Your task to perform on an android device: Go to accessibility settings Image 0: 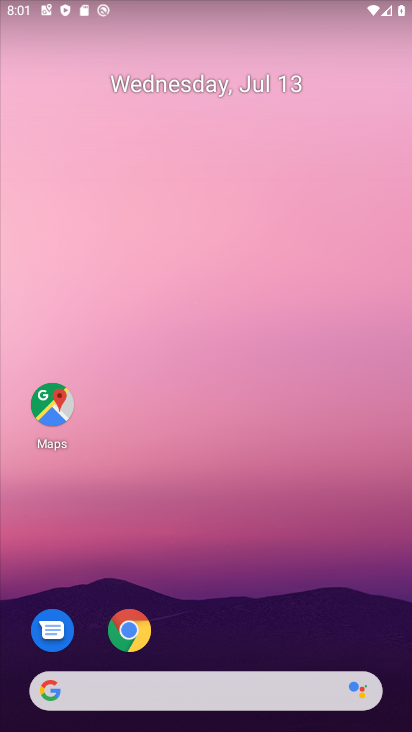
Step 0: drag from (343, 608) to (330, 81)
Your task to perform on an android device: Go to accessibility settings Image 1: 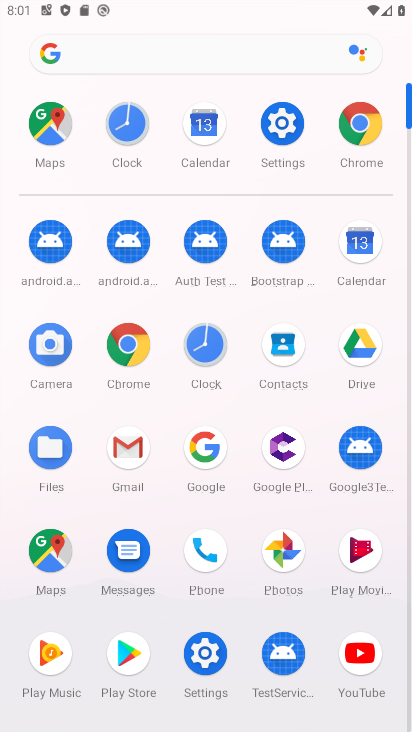
Step 1: click (292, 134)
Your task to perform on an android device: Go to accessibility settings Image 2: 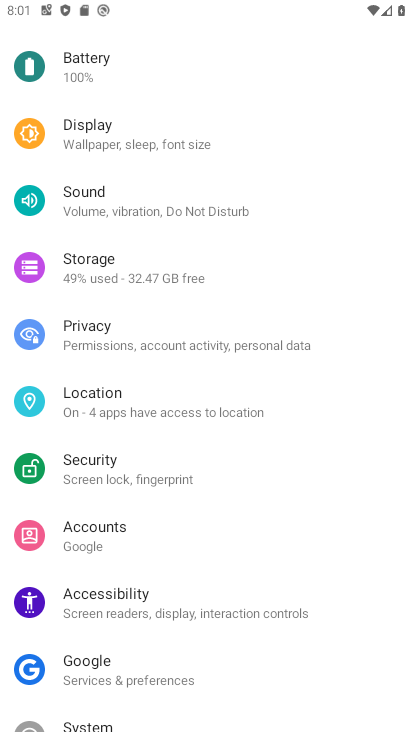
Step 2: drag from (331, 224) to (337, 331)
Your task to perform on an android device: Go to accessibility settings Image 3: 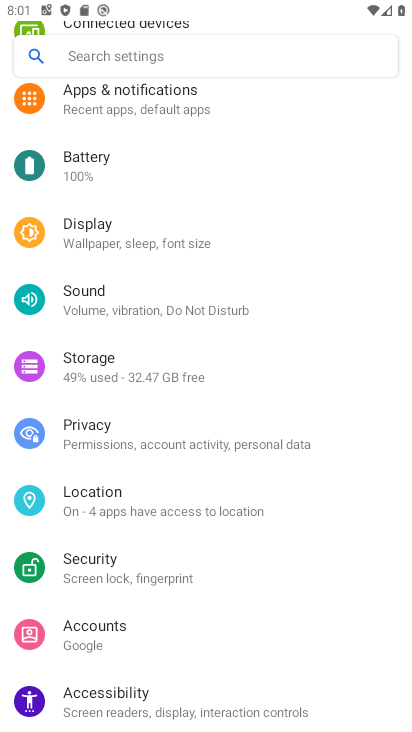
Step 3: drag from (335, 186) to (344, 332)
Your task to perform on an android device: Go to accessibility settings Image 4: 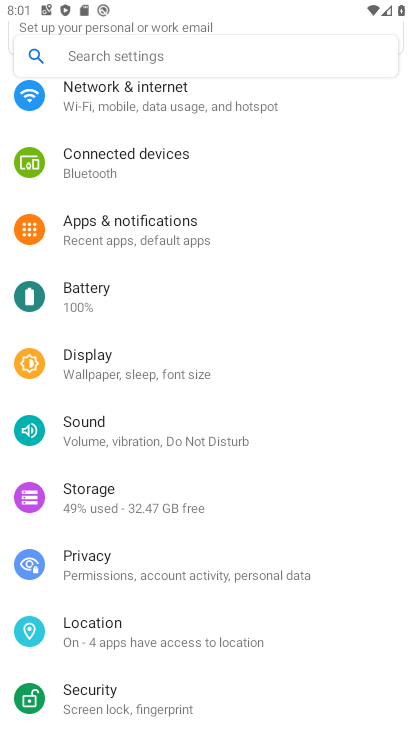
Step 4: drag from (334, 181) to (344, 294)
Your task to perform on an android device: Go to accessibility settings Image 5: 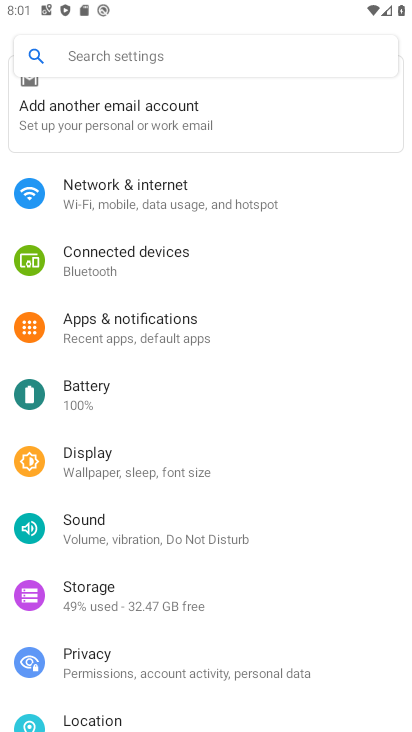
Step 5: drag from (346, 211) to (354, 343)
Your task to perform on an android device: Go to accessibility settings Image 6: 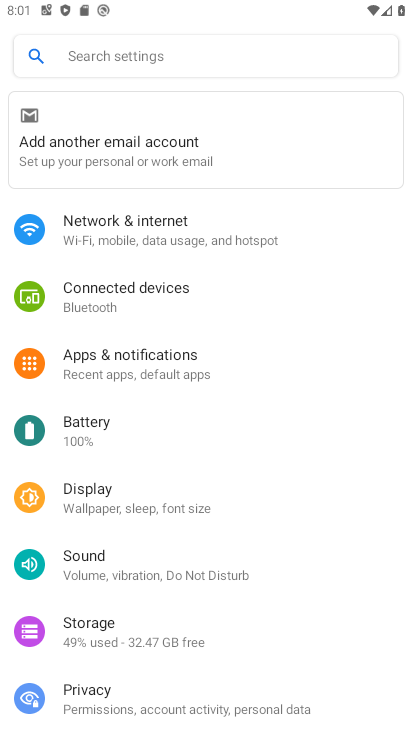
Step 6: drag from (348, 496) to (326, 294)
Your task to perform on an android device: Go to accessibility settings Image 7: 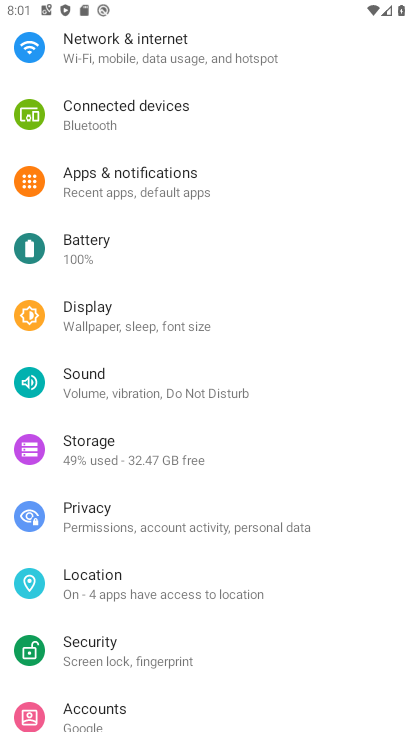
Step 7: drag from (345, 460) to (333, 270)
Your task to perform on an android device: Go to accessibility settings Image 8: 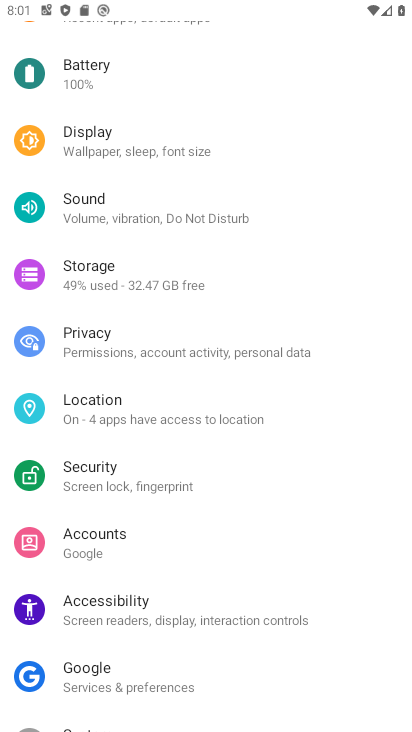
Step 8: drag from (346, 448) to (337, 342)
Your task to perform on an android device: Go to accessibility settings Image 9: 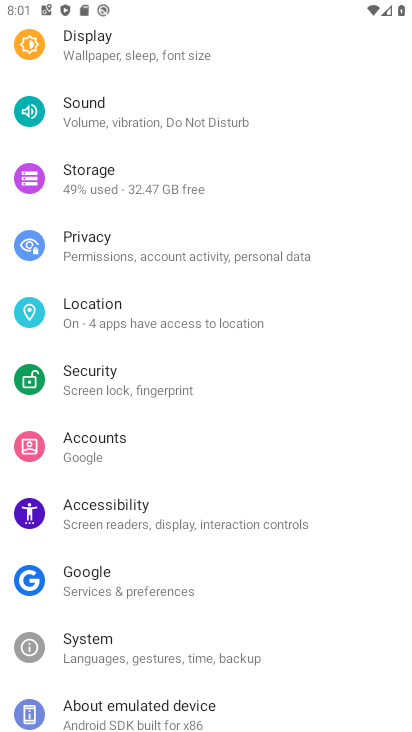
Step 9: drag from (346, 495) to (353, 297)
Your task to perform on an android device: Go to accessibility settings Image 10: 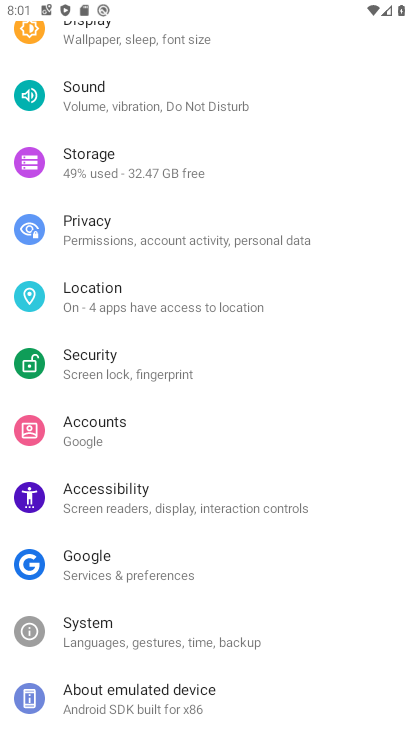
Step 10: drag from (352, 200) to (354, 371)
Your task to perform on an android device: Go to accessibility settings Image 11: 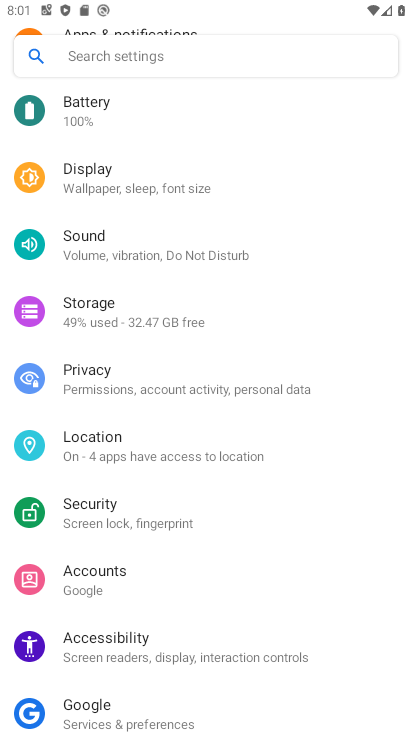
Step 11: drag from (351, 182) to (350, 316)
Your task to perform on an android device: Go to accessibility settings Image 12: 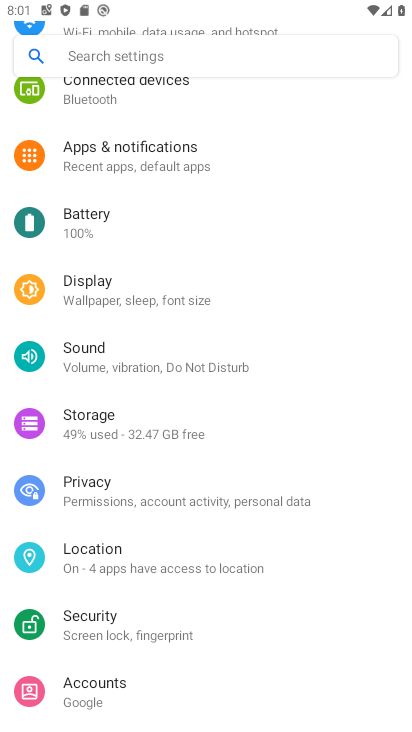
Step 12: drag from (350, 155) to (345, 307)
Your task to perform on an android device: Go to accessibility settings Image 13: 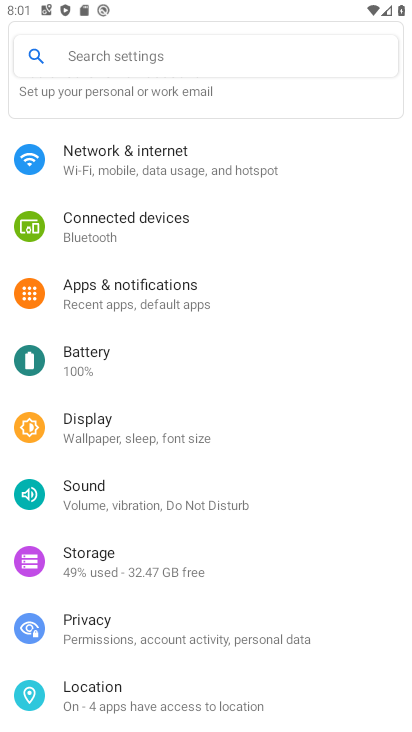
Step 13: drag from (355, 182) to (357, 325)
Your task to perform on an android device: Go to accessibility settings Image 14: 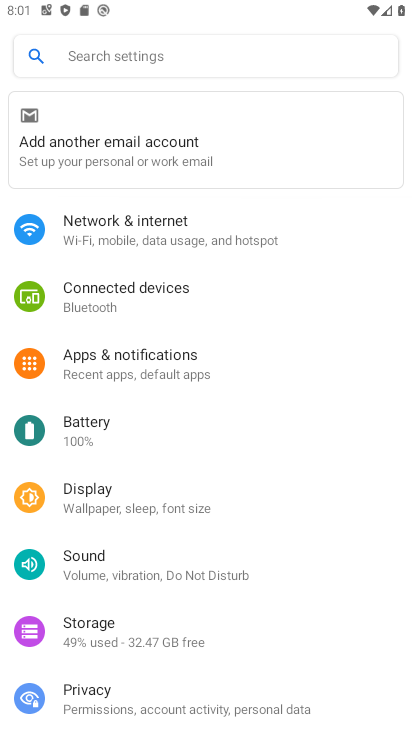
Step 14: drag from (352, 443) to (344, 324)
Your task to perform on an android device: Go to accessibility settings Image 15: 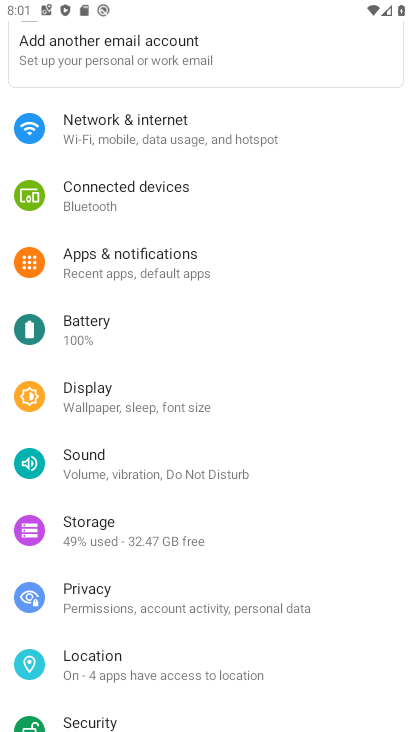
Step 15: drag from (343, 444) to (342, 292)
Your task to perform on an android device: Go to accessibility settings Image 16: 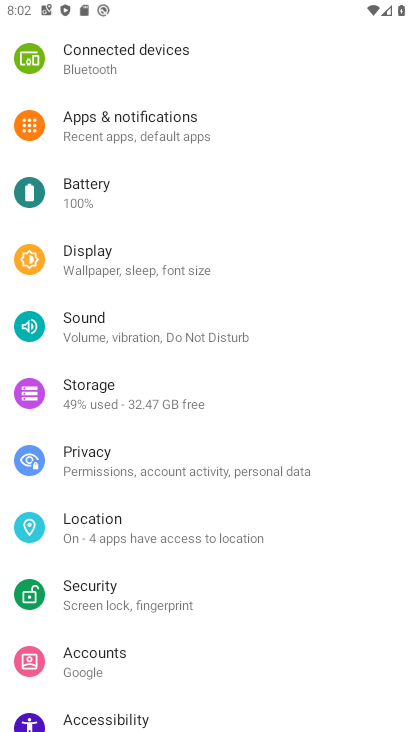
Step 16: drag from (346, 531) to (344, 380)
Your task to perform on an android device: Go to accessibility settings Image 17: 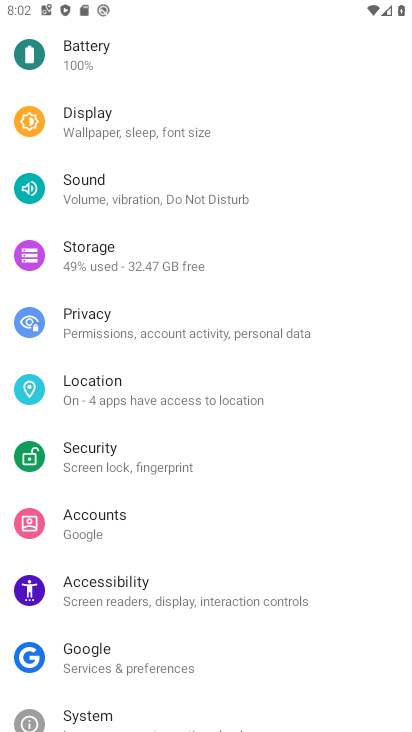
Step 17: drag from (332, 542) to (334, 371)
Your task to perform on an android device: Go to accessibility settings Image 18: 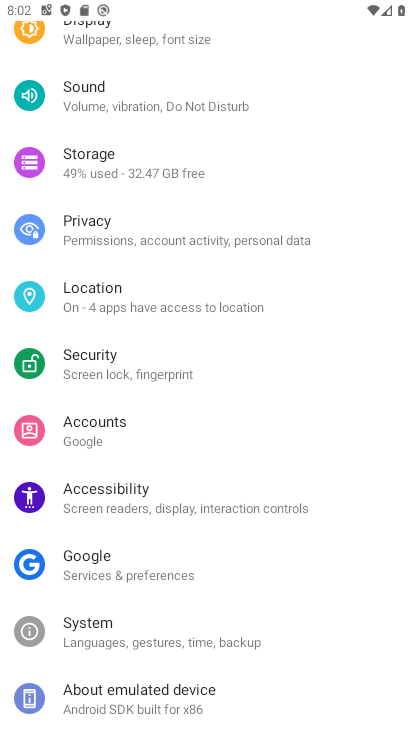
Step 18: click (249, 491)
Your task to perform on an android device: Go to accessibility settings Image 19: 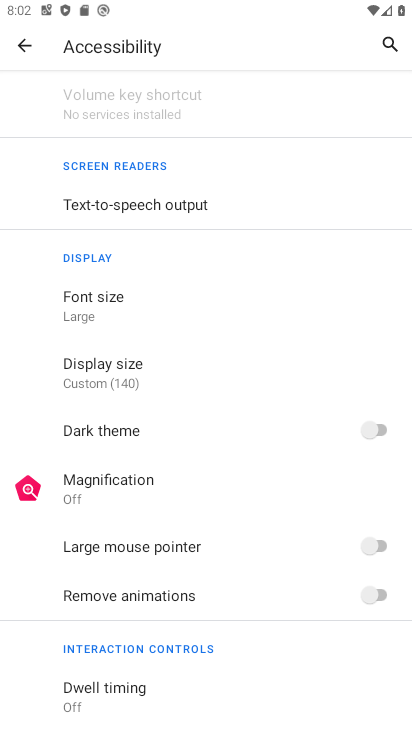
Step 19: task complete